Your task to perform on an android device: open chrome privacy settings Image 0: 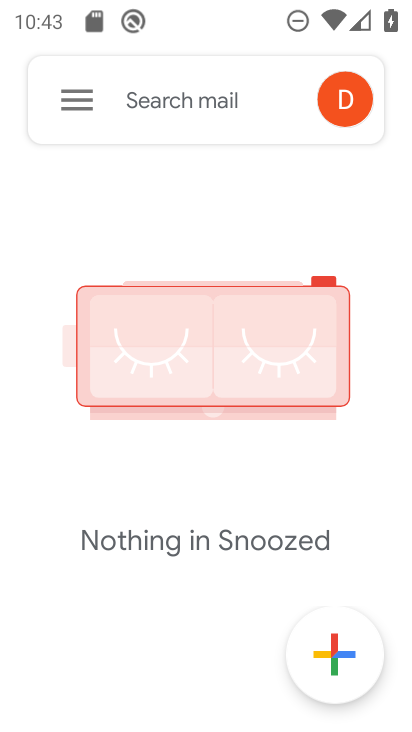
Step 0: press home button
Your task to perform on an android device: open chrome privacy settings Image 1: 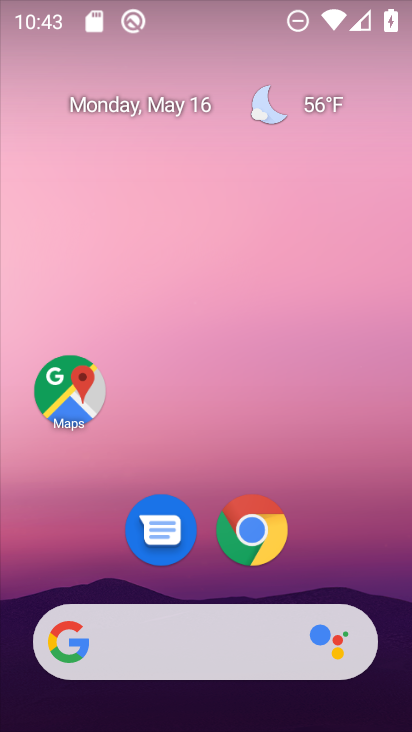
Step 1: drag from (358, 453) to (346, 120)
Your task to perform on an android device: open chrome privacy settings Image 2: 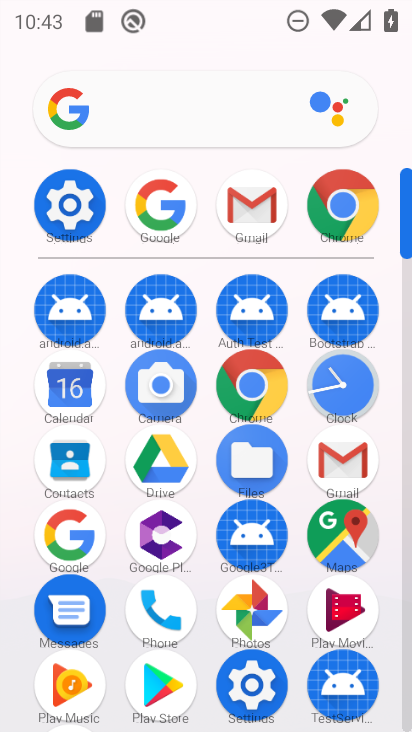
Step 2: click (267, 394)
Your task to perform on an android device: open chrome privacy settings Image 3: 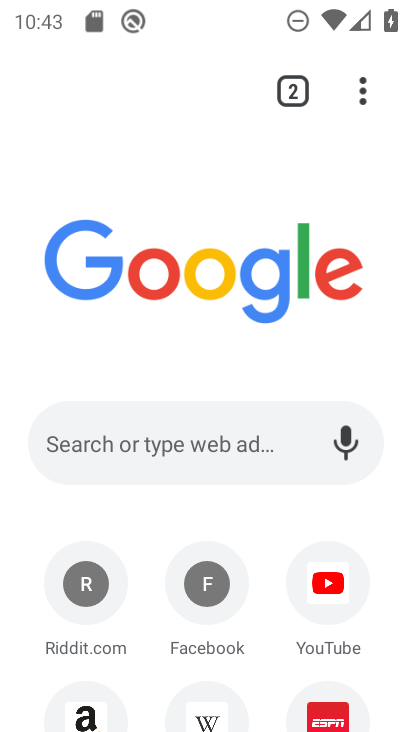
Step 3: click (363, 99)
Your task to perform on an android device: open chrome privacy settings Image 4: 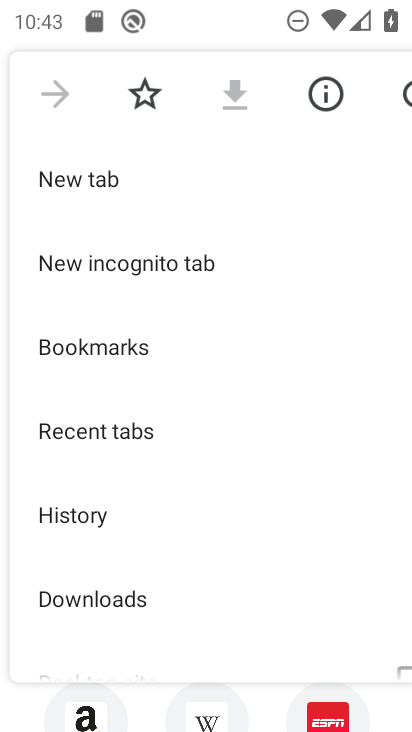
Step 4: drag from (289, 548) to (307, 353)
Your task to perform on an android device: open chrome privacy settings Image 5: 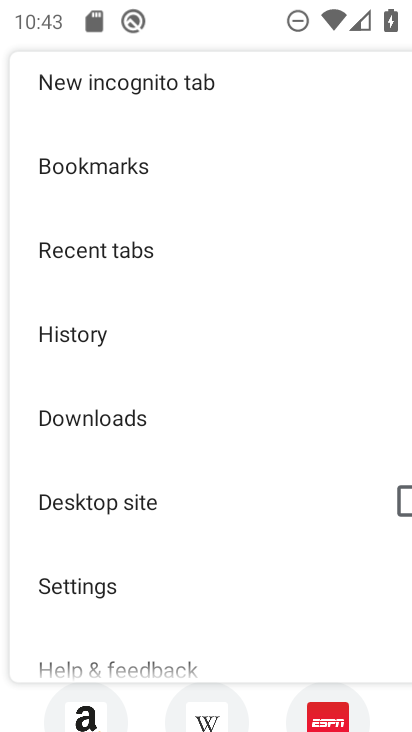
Step 5: drag from (269, 586) to (282, 381)
Your task to perform on an android device: open chrome privacy settings Image 6: 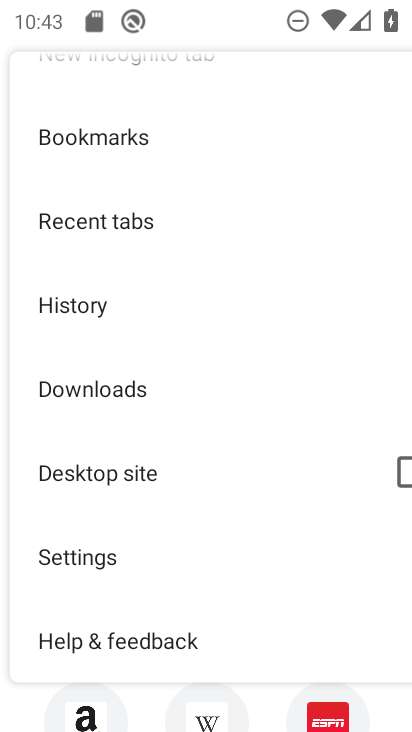
Step 6: drag from (249, 554) to (249, 431)
Your task to perform on an android device: open chrome privacy settings Image 7: 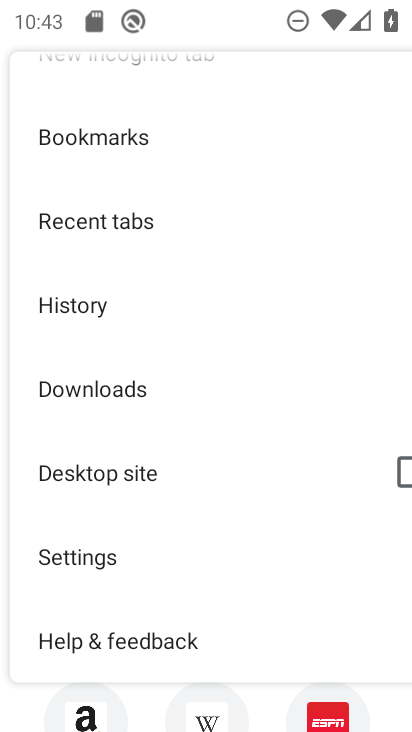
Step 7: drag from (253, 521) to (249, 393)
Your task to perform on an android device: open chrome privacy settings Image 8: 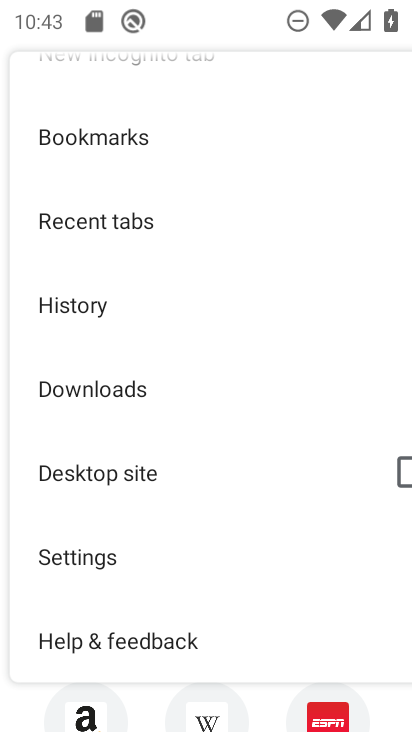
Step 8: click (109, 554)
Your task to perform on an android device: open chrome privacy settings Image 9: 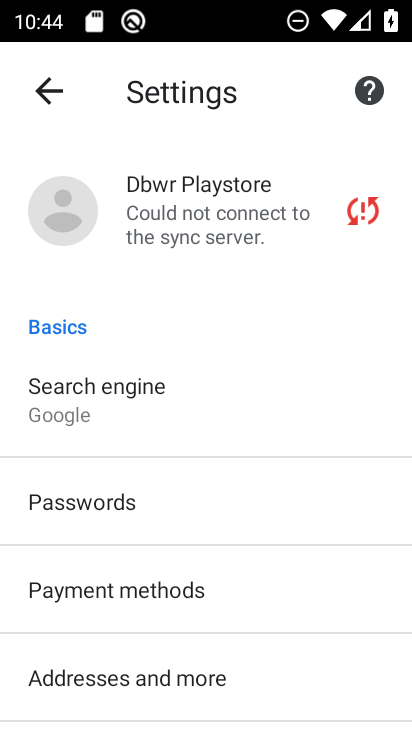
Step 9: drag from (291, 575) to (290, 424)
Your task to perform on an android device: open chrome privacy settings Image 10: 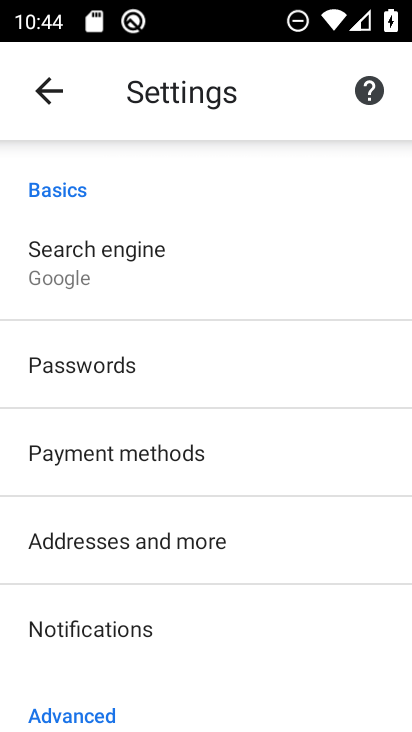
Step 10: drag from (300, 613) to (309, 488)
Your task to perform on an android device: open chrome privacy settings Image 11: 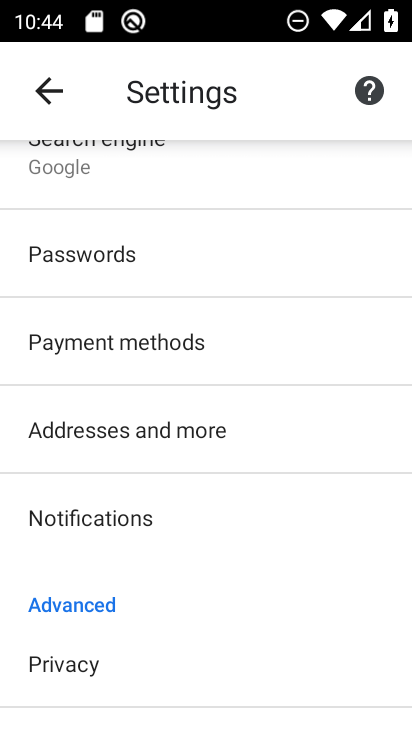
Step 11: drag from (206, 636) to (228, 487)
Your task to perform on an android device: open chrome privacy settings Image 12: 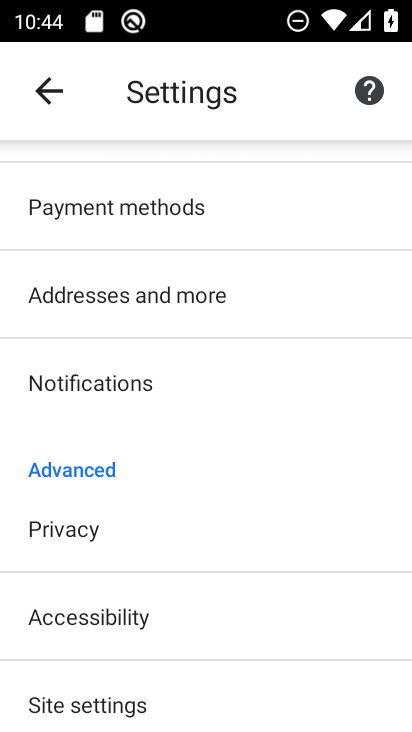
Step 12: click (193, 543)
Your task to perform on an android device: open chrome privacy settings Image 13: 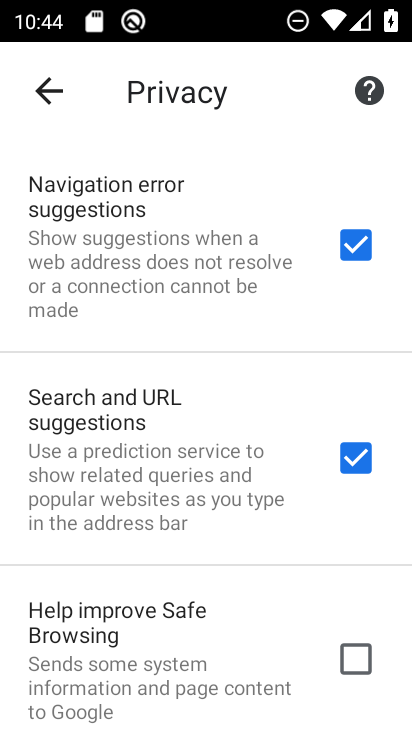
Step 13: task complete